Your task to perform on an android device: change notifications settings Image 0: 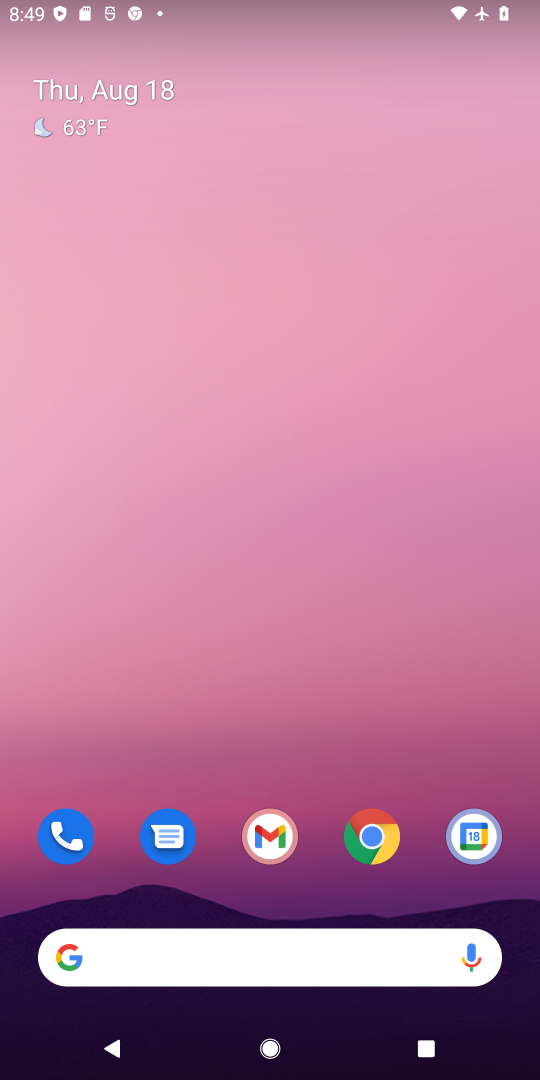
Step 0: drag from (308, 687) to (299, 34)
Your task to perform on an android device: change notifications settings Image 1: 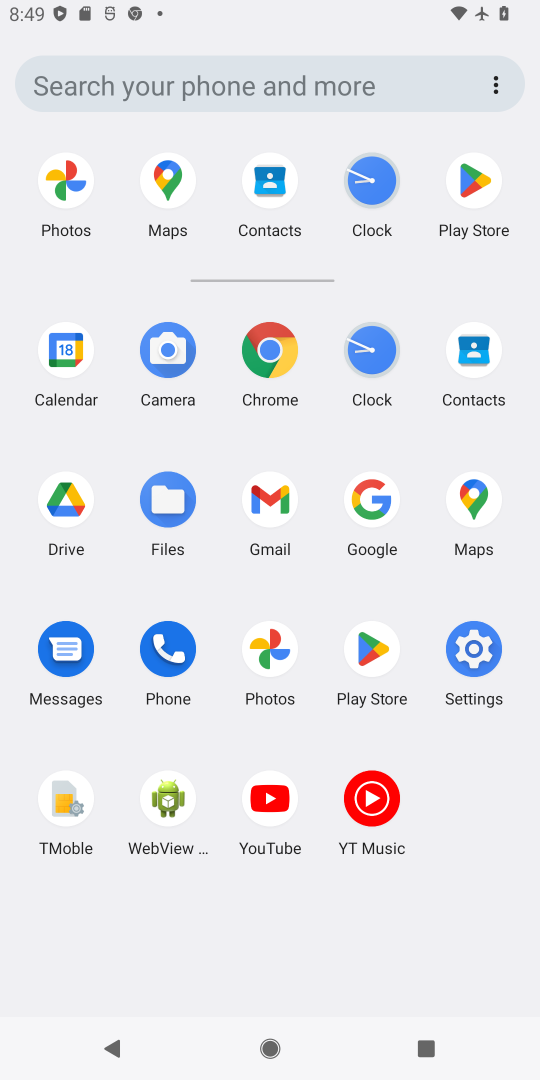
Step 1: click (467, 651)
Your task to perform on an android device: change notifications settings Image 2: 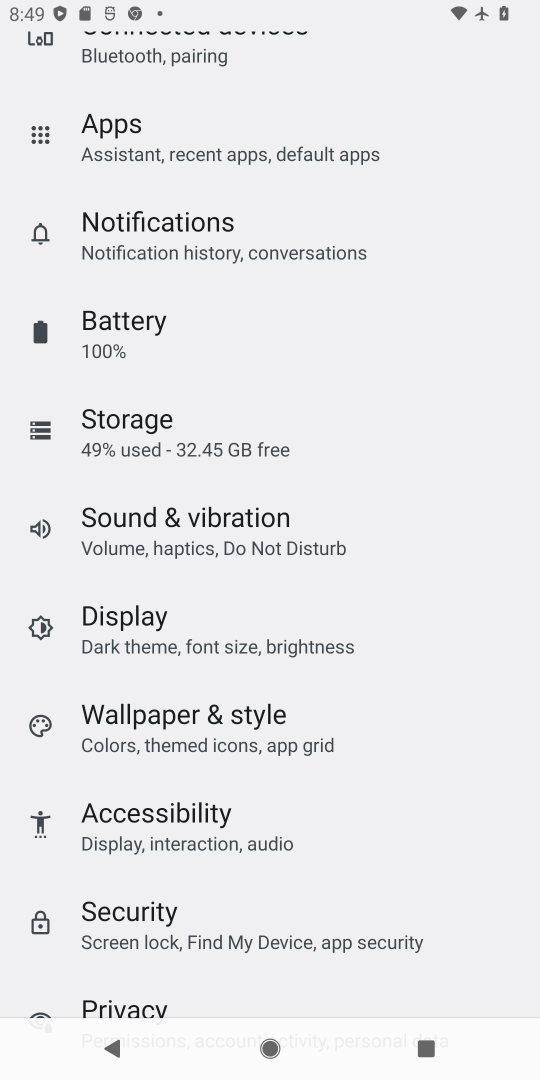
Step 2: click (238, 257)
Your task to perform on an android device: change notifications settings Image 3: 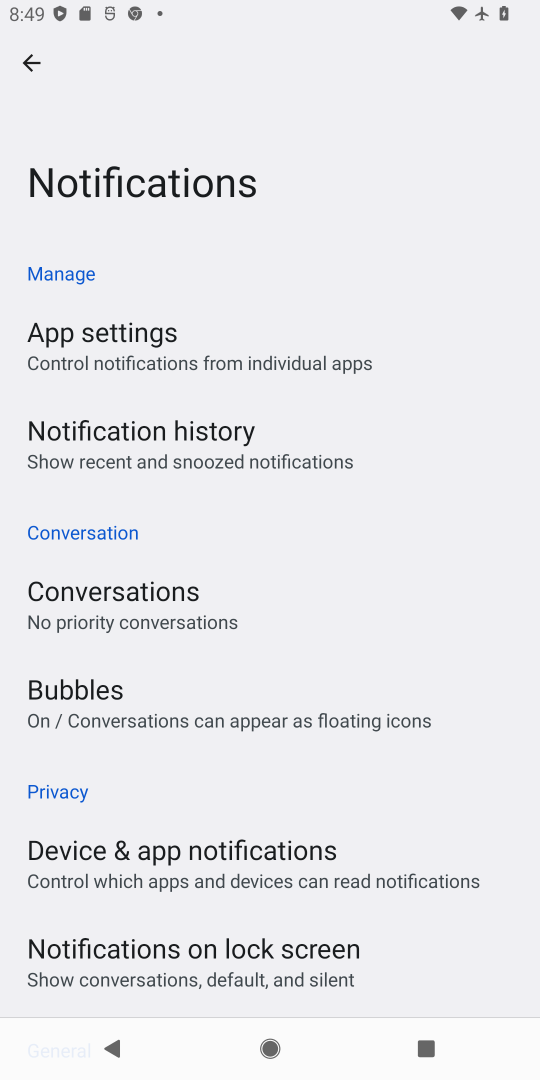
Step 3: task complete